Your task to perform on an android device: Do I have any events today? Image 0: 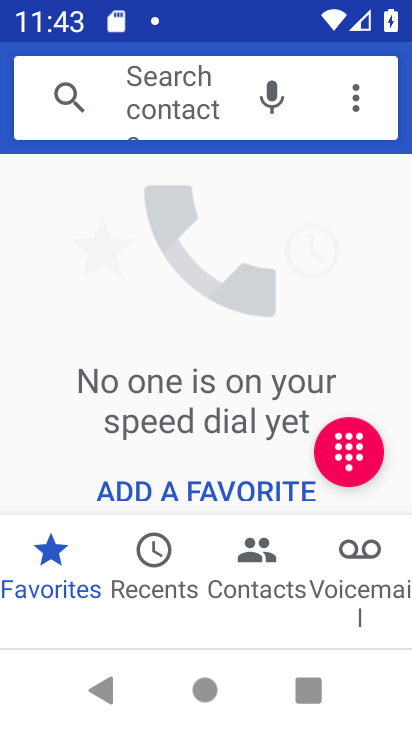
Step 0: press home button
Your task to perform on an android device: Do I have any events today? Image 1: 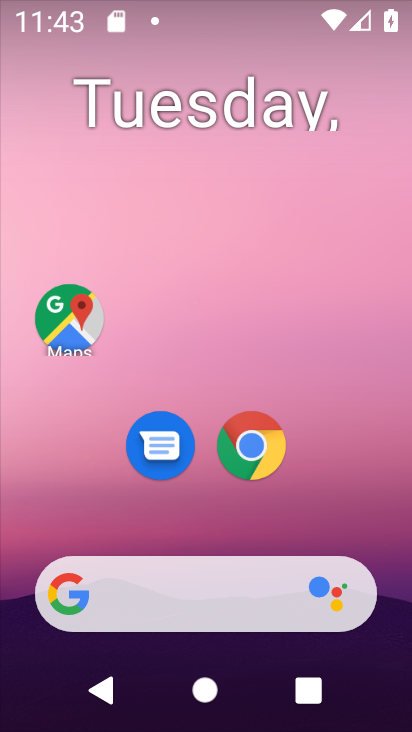
Step 1: drag from (394, 617) to (204, 2)
Your task to perform on an android device: Do I have any events today? Image 2: 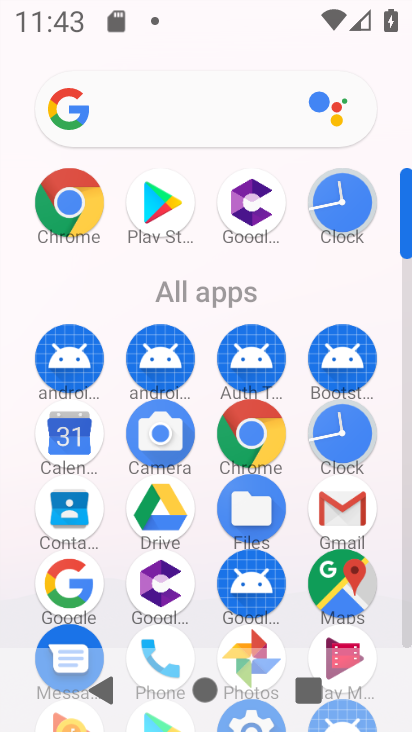
Step 2: click (64, 435)
Your task to perform on an android device: Do I have any events today? Image 3: 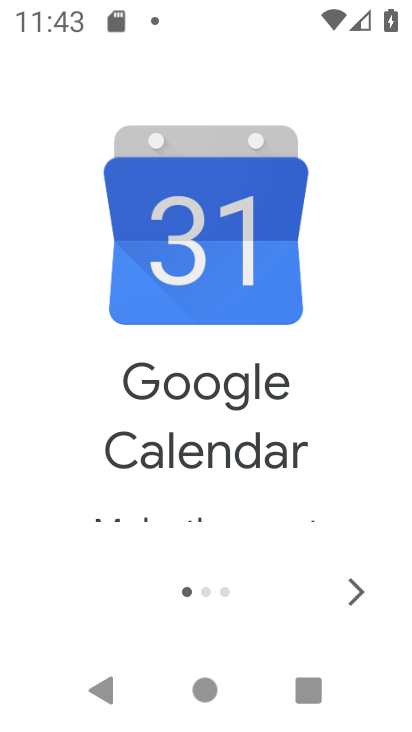
Step 3: click (370, 585)
Your task to perform on an android device: Do I have any events today? Image 4: 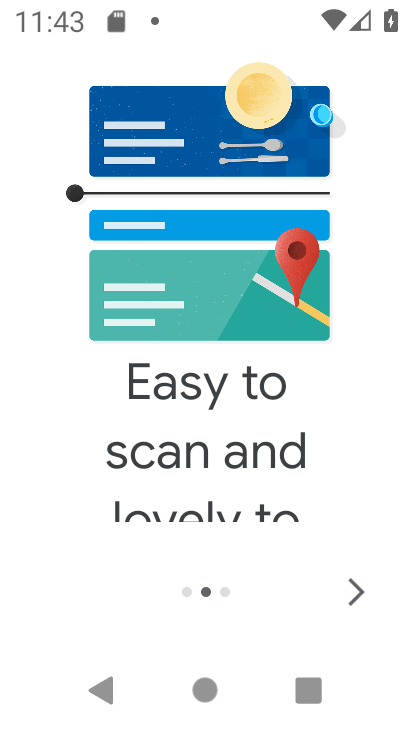
Step 4: click (357, 584)
Your task to perform on an android device: Do I have any events today? Image 5: 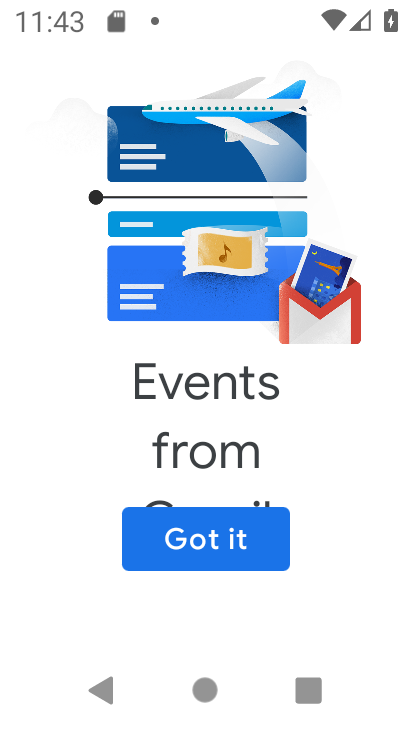
Step 5: click (217, 514)
Your task to perform on an android device: Do I have any events today? Image 6: 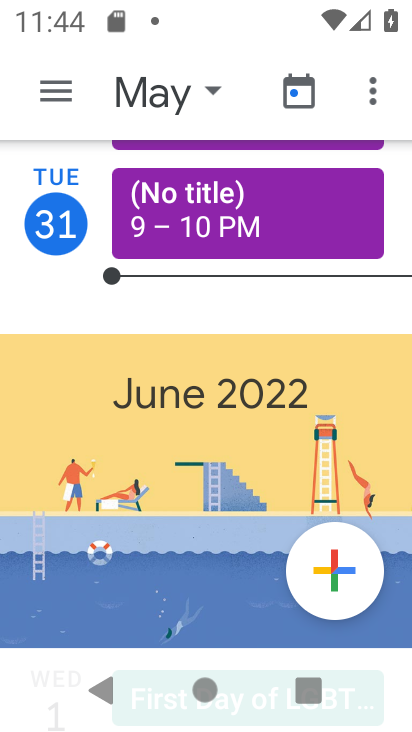
Step 6: click (155, 88)
Your task to perform on an android device: Do I have any events today? Image 7: 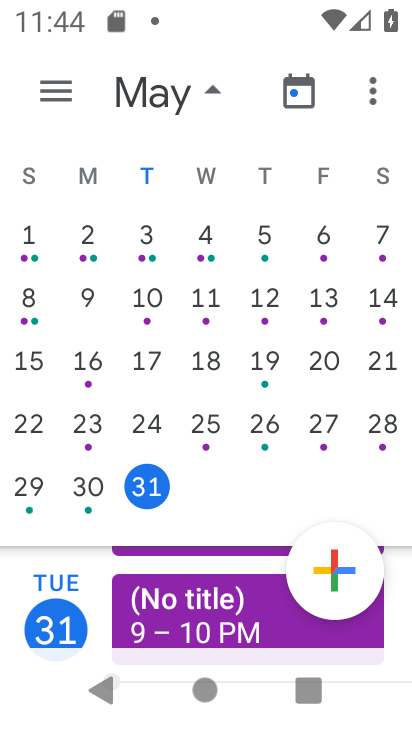
Step 7: task complete